Your task to perform on an android device: toggle javascript in the chrome app Image 0: 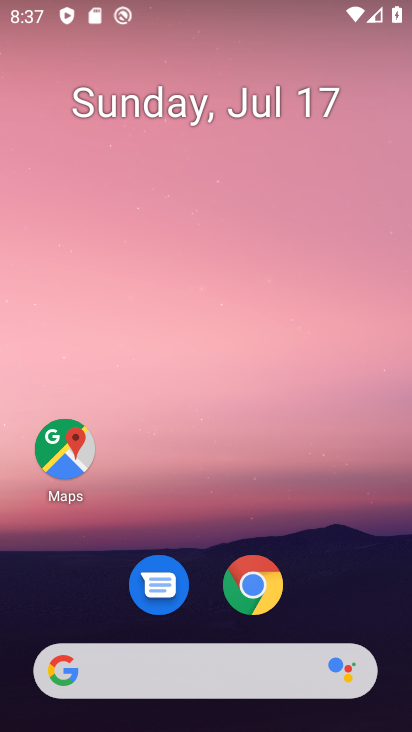
Step 0: click (215, 105)
Your task to perform on an android device: toggle javascript in the chrome app Image 1: 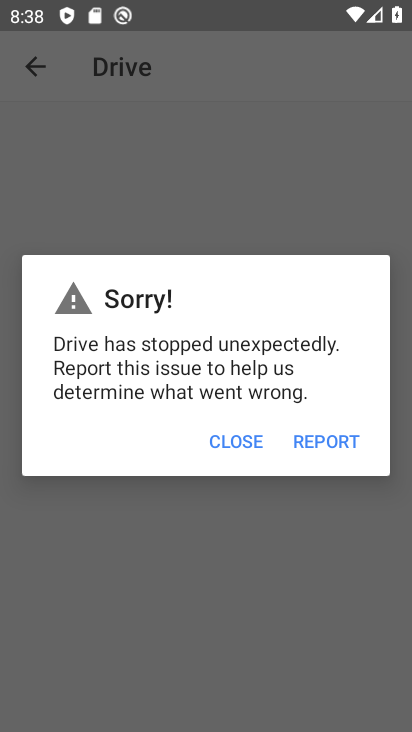
Step 1: drag from (185, 677) to (289, 166)
Your task to perform on an android device: toggle javascript in the chrome app Image 2: 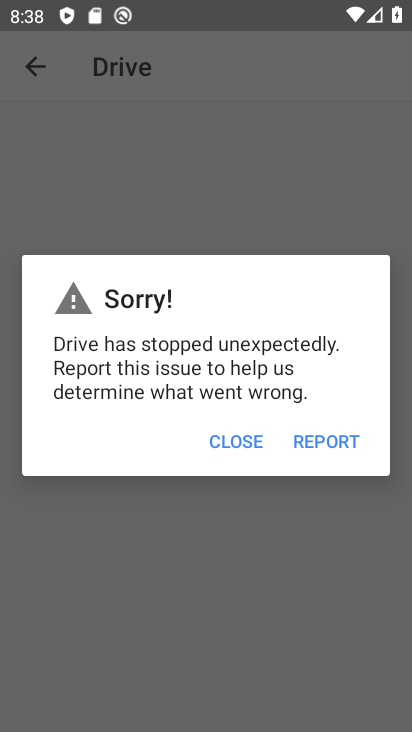
Step 2: press home button
Your task to perform on an android device: toggle javascript in the chrome app Image 3: 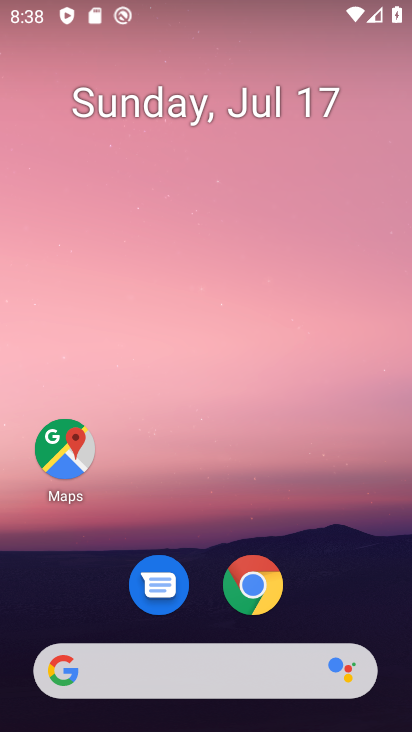
Step 3: drag from (149, 659) to (240, 218)
Your task to perform on an android device: toggle javascript in the chrome app Image 4: 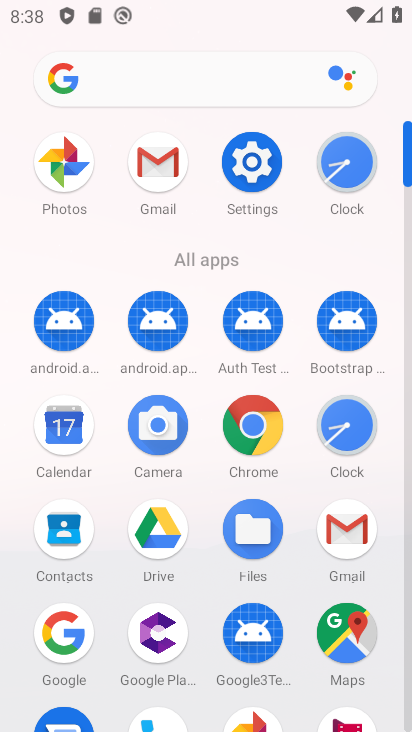
Step 4: click (243, 415)
Your task to perform on an android device: toggle javascript in the chrome app Image 5: 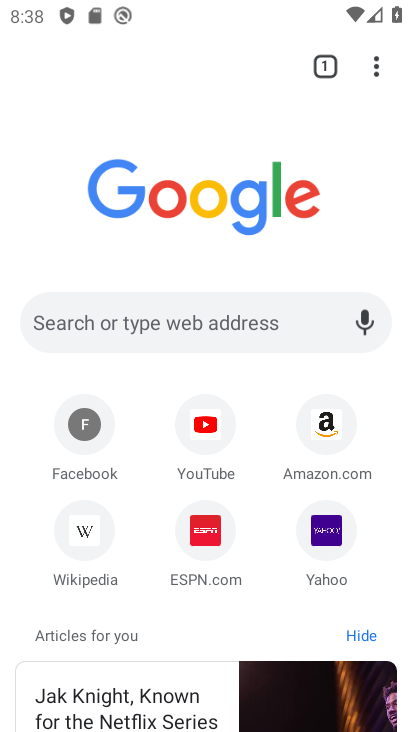
Step 5: drag from (372, 66) to (204, 562)
Your task to perform on an android device: toggle javascript in the chrome app Image 6: 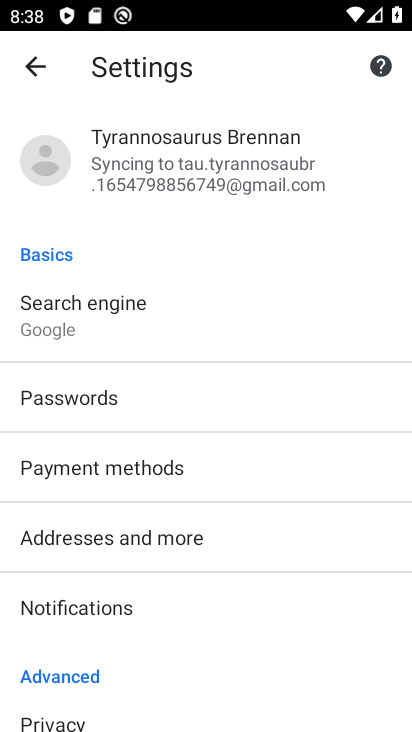
Step 6: drag from (157, 644) to (286, 193)
Your task to perform on an android device: toggle javascript in the chrome app Image 7: 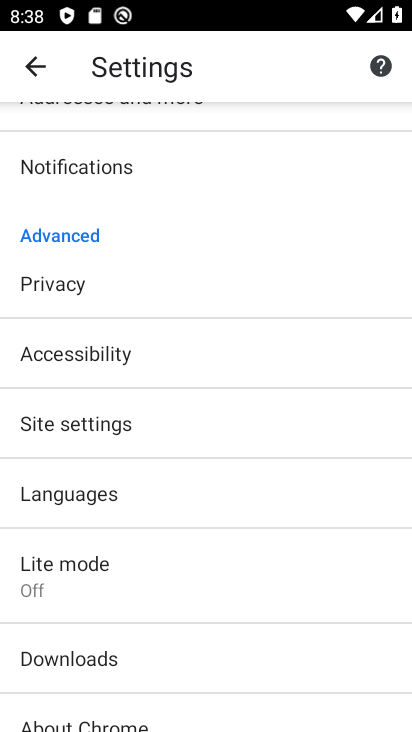
Step 7: click (90, 429)
Your task to perform on an android device: toggle javascript in the chrome app Image 8: 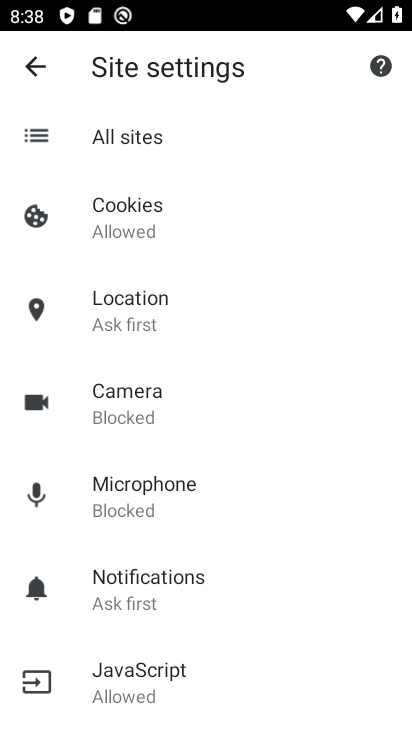
Step 8: click (154, 682)
Your task to perform on an android device: toggle javascript in the chrome app Image 9: 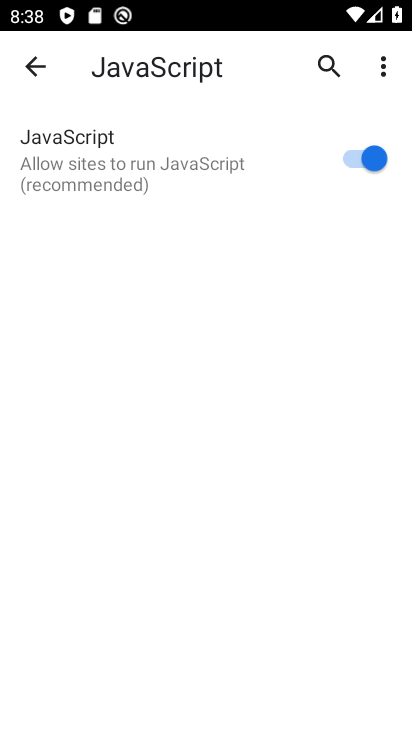
Step 9: click (356, 150)
Your task to perform on an android device: toggle javascript in the chrome app Image 10: 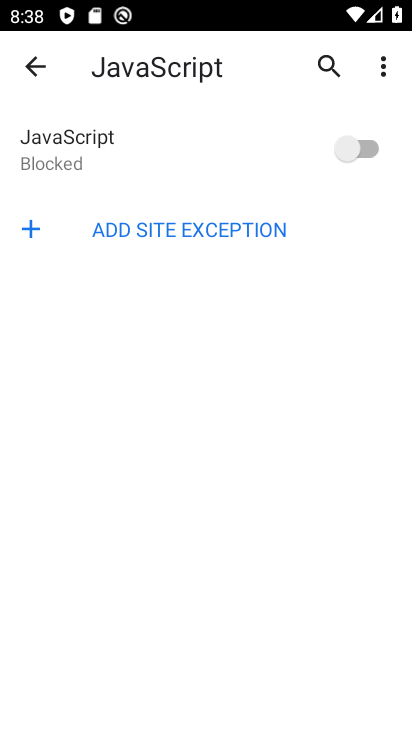
Step 10: task complete